Your task to perform on an android device: install app "Gmail" Image 0: 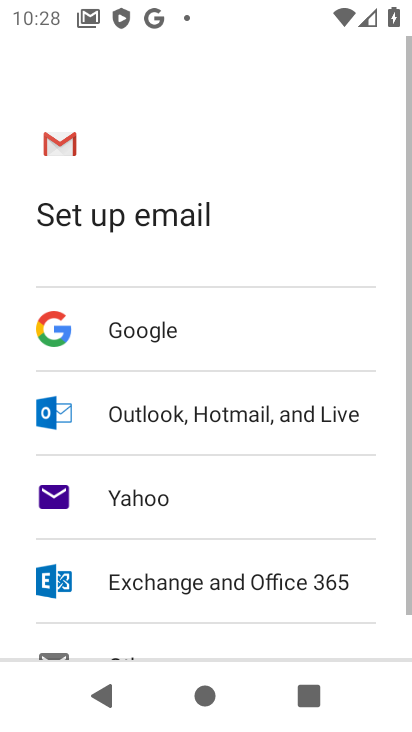
Step 0: press home button
Your task to perform on an android device: install app "Gmail" Image 1: 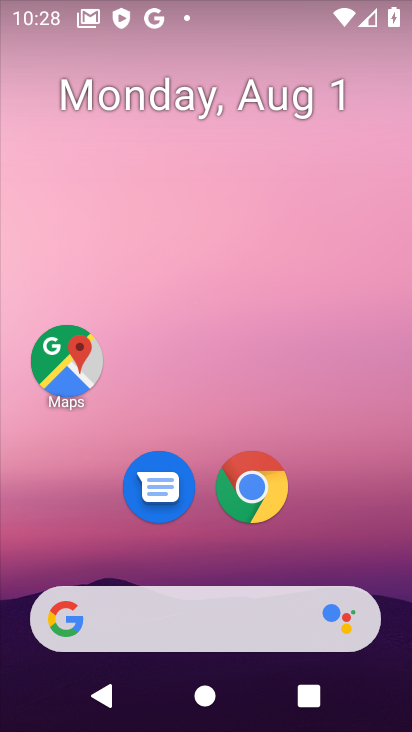
Step 1: drag from (211, 573) to (379, 89)
Your task to perform on an android device: install app "Gmail" Image 2: 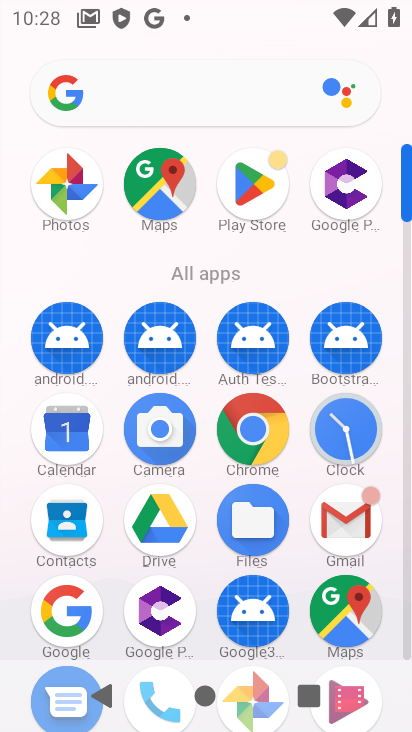
Step 2: click (337, 529)
Your task to perform on an android device: install app "Gmail" Image 3: 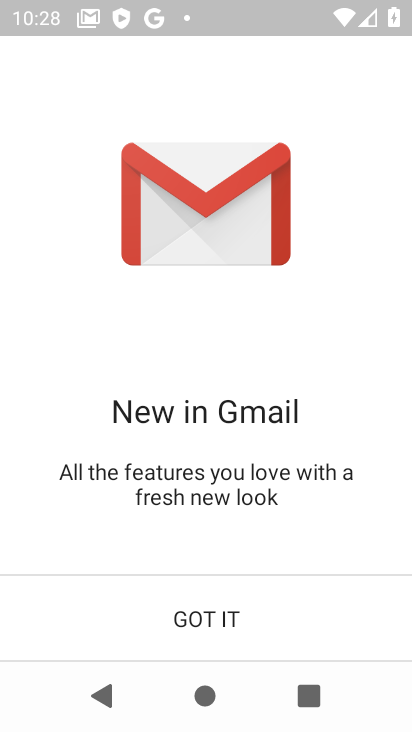
Step 3: click (163, 604)
Your task to perform on an android device: install app "Gmail" Image 4: 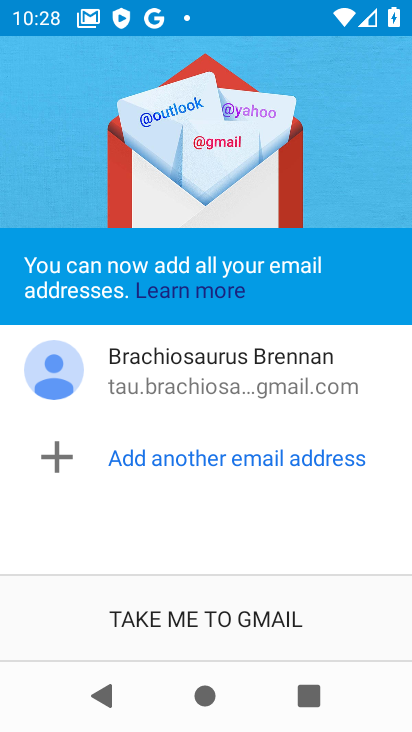
Step 4: click (161, 626)
Your task to perform on an android device: install app "Gmail" Image 5: 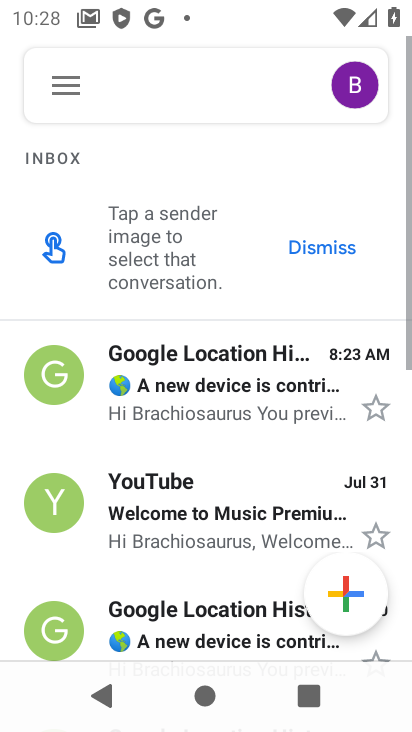
Step 5: task complete